Your task to perform on an android device: find which apps use the phone's location Image 0: 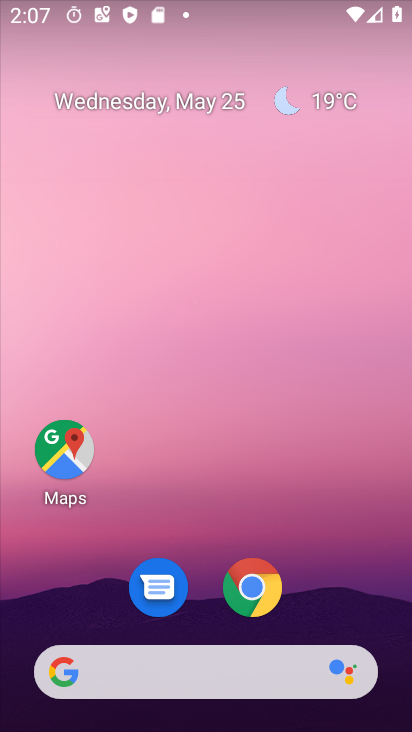
Step 0: drag from (206, 615) to (253, 114)
Your task to perform on an android device: find which apps use the phone's location Image 1: 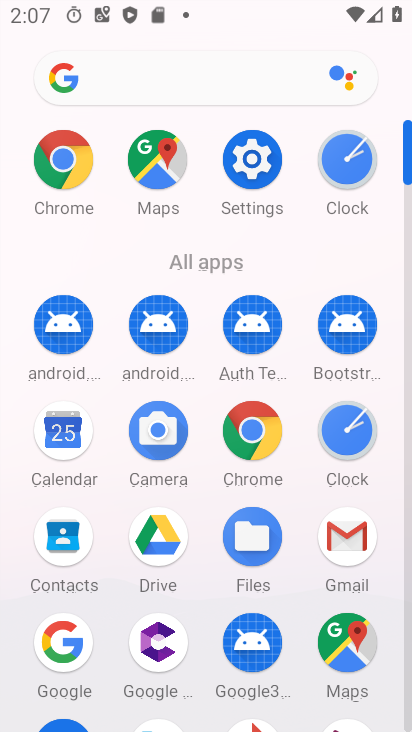
Step 1: click (251, 158)
Your task to perform on an android device: find which apps use the phone's location Image 2: 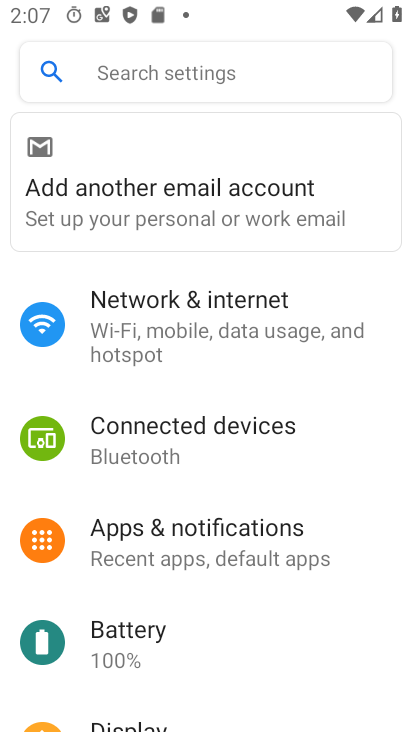
Step 2: drag from (237, 638) to (349, 6)
Your task to perform on an android device: find which apps use the phone's location Image 3: 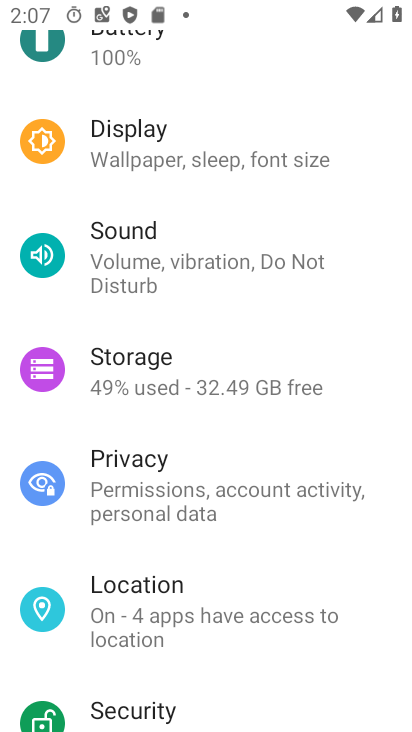
Step 3: click (150, 605)
Your task to perform on an android device: find which apps use the phone's location Image 4: 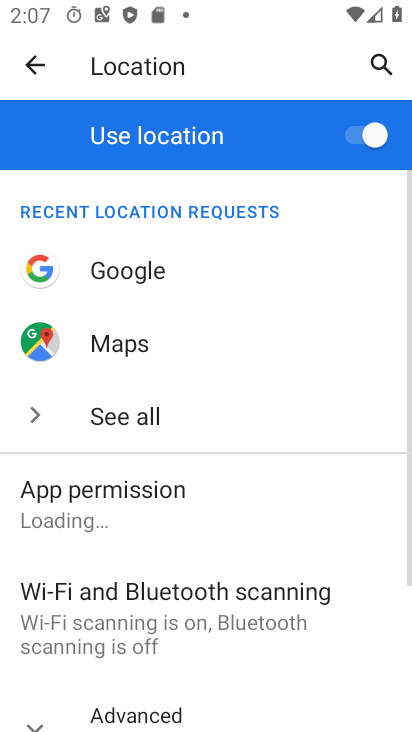
Step 4: click (126, 508)
Your task to perform on an android device: find which apps use the phone's location Image 5: 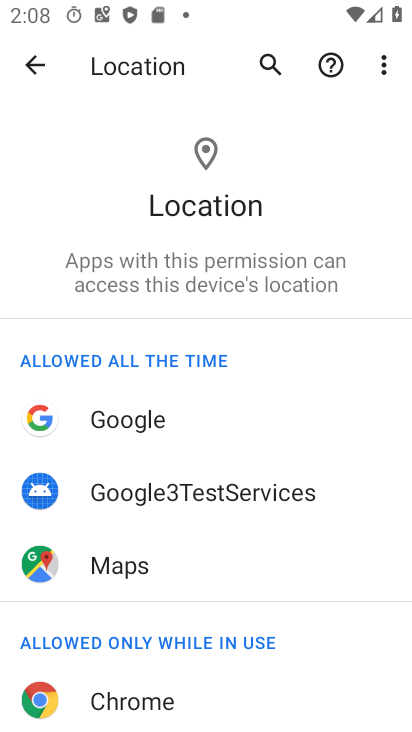
Step 5: task complete